Your task to perform on an android device: Go to privacy settings Image 0: 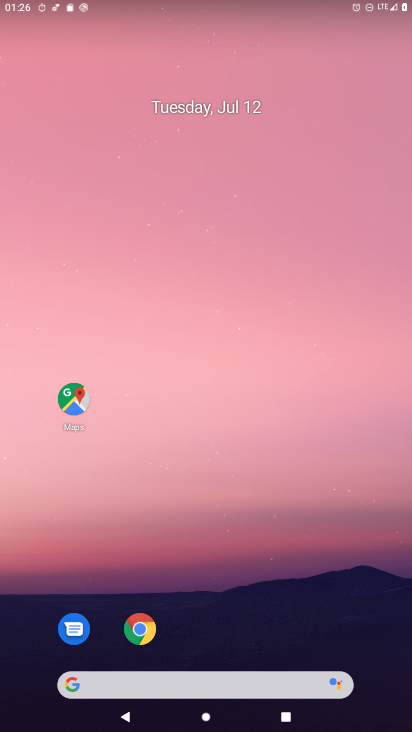
Step 0: drag from (62, 486) to (321, 89)
Your task to perform on an android device: Go to privacy settings Image 1: 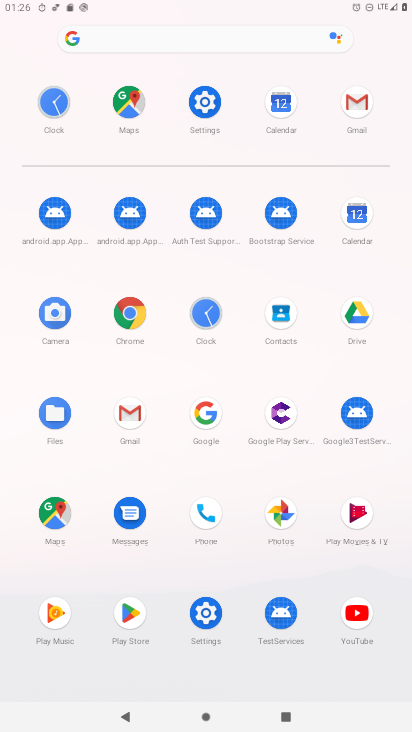
Step 1: click (211, 621)
Your task to perform on an android device: Go to privacy settings Image 2: 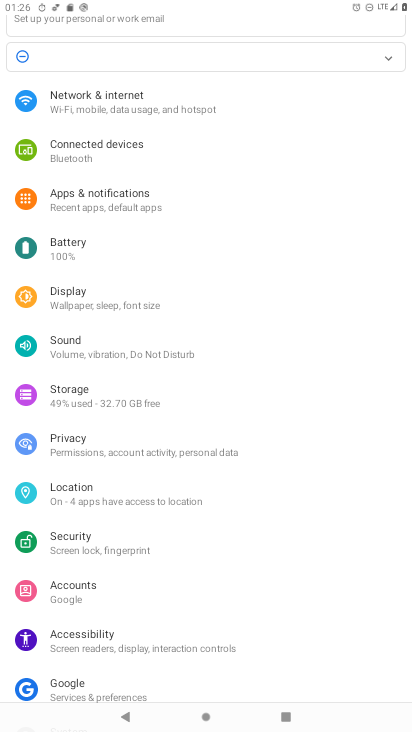
Step 2: click (13, 652)
Your task to perform on an android device: Go to privacy settings Image 3: 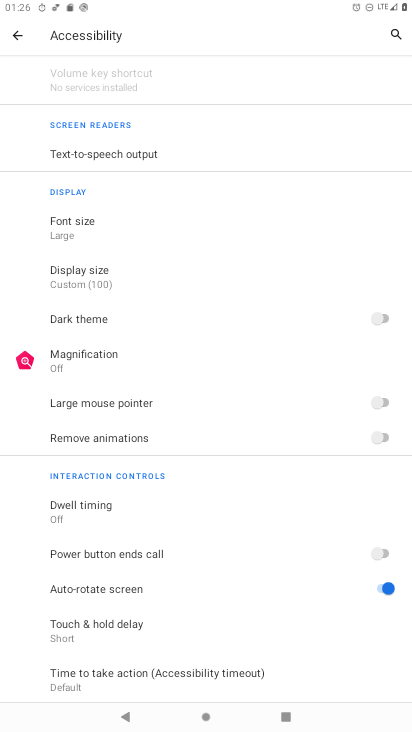
Step 3: type ""
Your task to perform on an android device: Go to privacy settings Image 4: 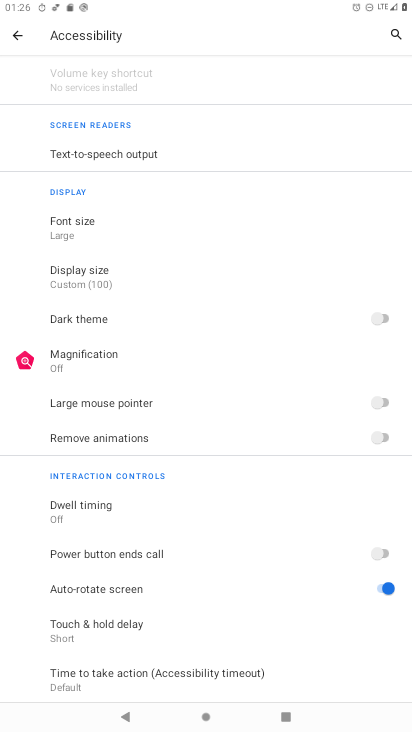
Step 4: type ""
Your task to perform on an android device: Go to privacy settings Image 5: 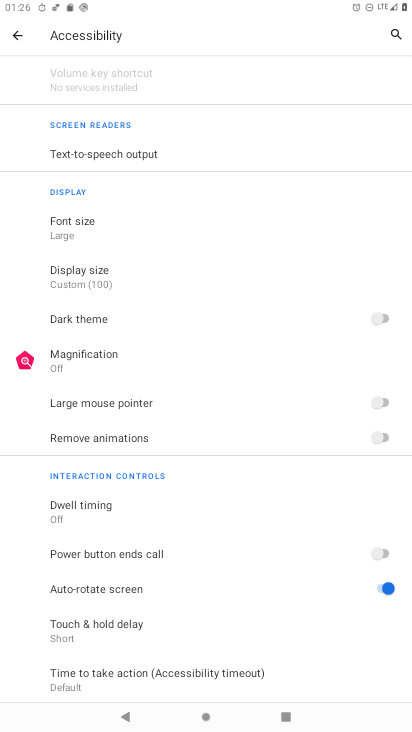
Step 5: press home button
Your task to perform on an android device: Go to privacy settings Image 6: 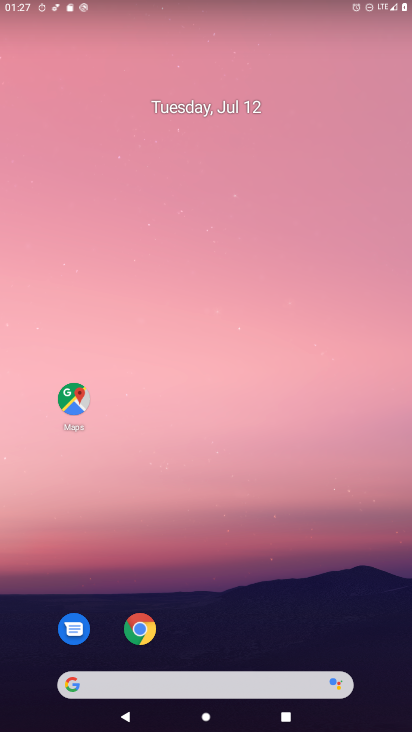
Step 6: drag from (50, 700) to (189, 66)
Your task to perform on an android device: Go to privacy settings Image 7: 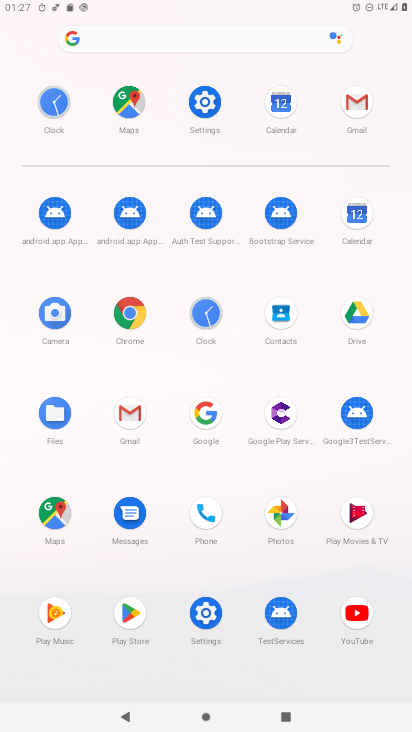
Step 7: click (200, 624)
Your task to perform on an android device: Go to privacy settings Image 8: 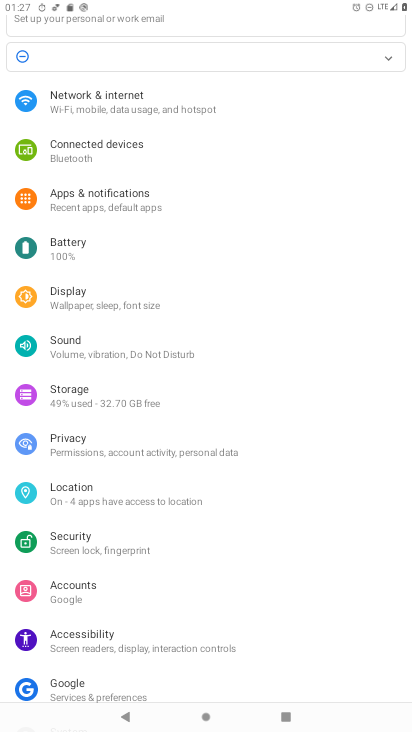
Step 8: click (87, 435)
Your task to perform on an android device: Go to privacy settings Image 9: 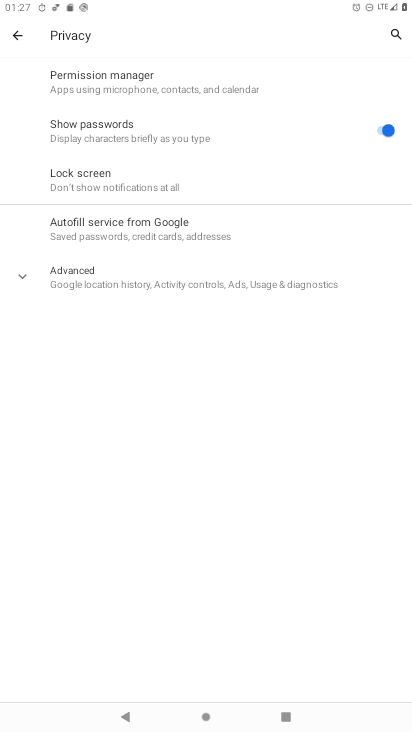
Step 9: task complete